Your task to perform on an android device: change notification settings in the gmail app Image 0: 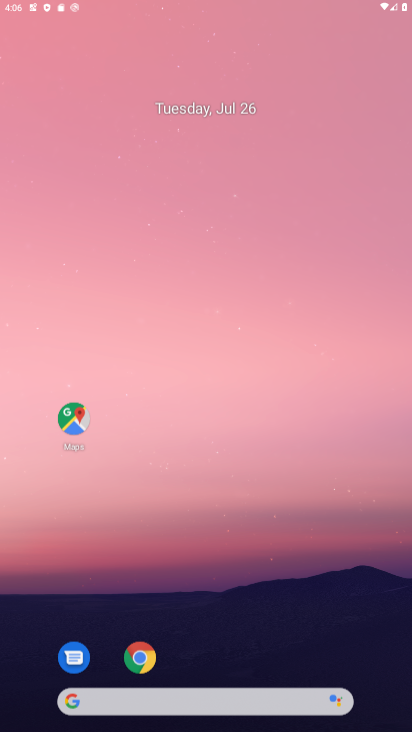
Step 0: drag from (299, 589) to (404, 112)
Your task to perform on an android device: change notification settings in the gmail app Image 1: 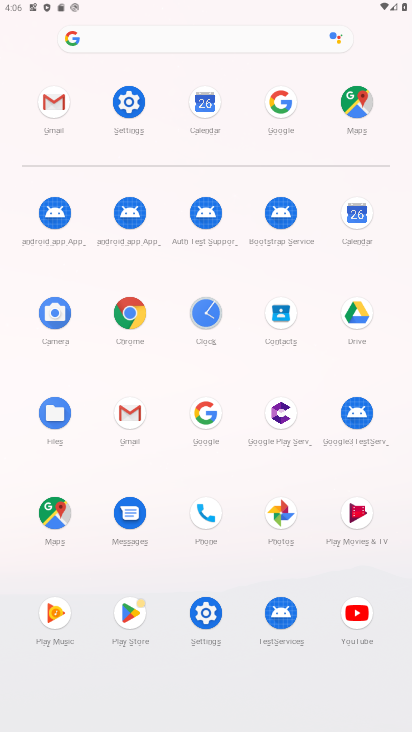
Step 1: click (131, 420)
Your task to perform on an android device: change notification settings in the gmail app Image 2: 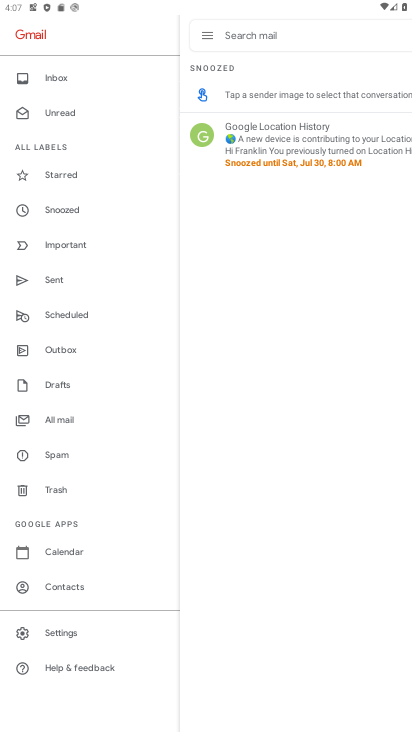
Step 2: click (59, 630)
Your task to perform on an android device: change notification settings in the gmail app Image 3: 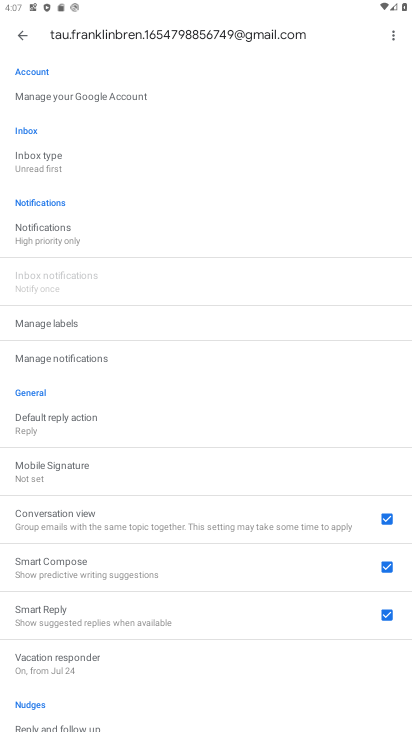
Step 3: click (60, 234)
Your task to perform on an android device: change notification settings in the gmail app Image 4: 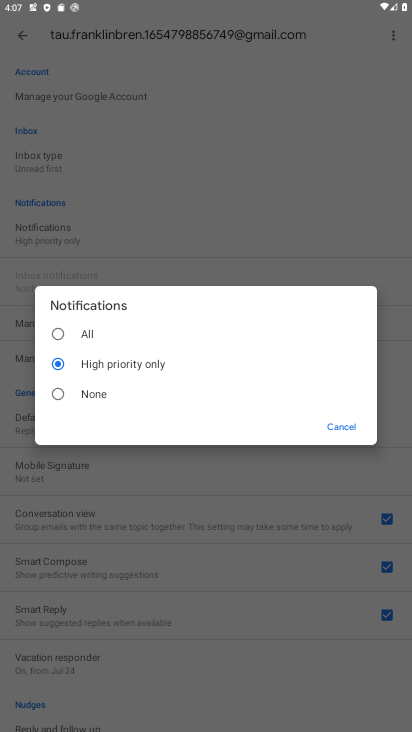
Step 4: click (72, 322)
Your task to perform on an android device: change notification settings in the gmail app Image 5: 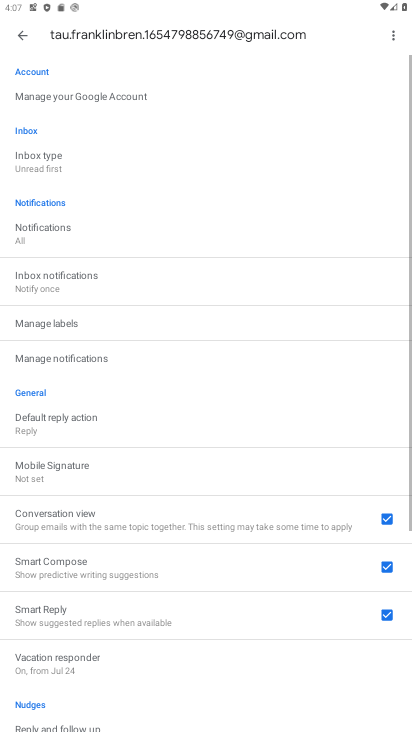
Step 5: task complete